Your task to perform on an android device: find which apps use the phone's location Image 0: 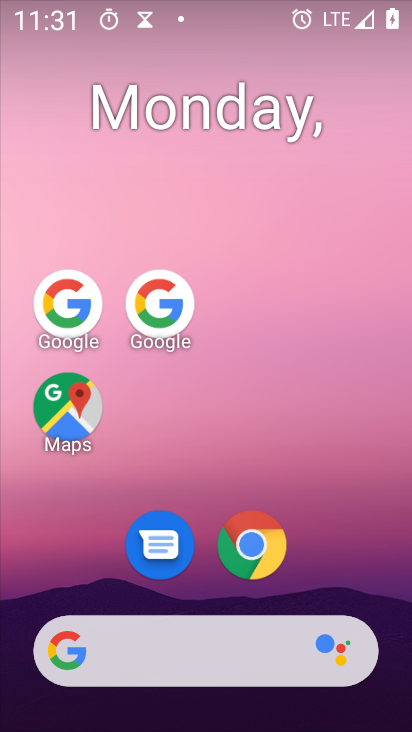
Step 0: press home button
Your task to perform on an android device: find which apps use the phone's location Image 1: 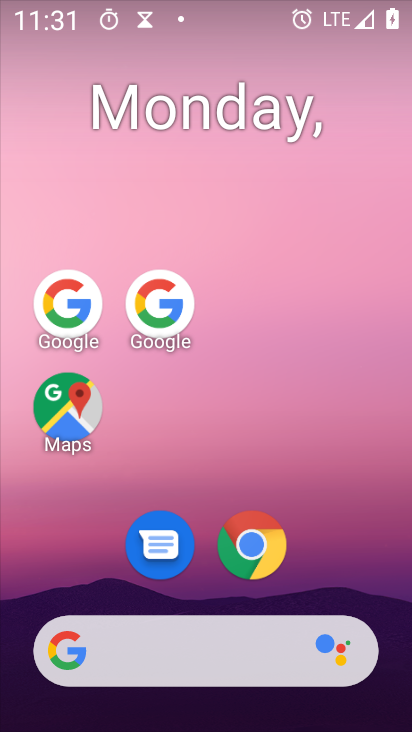
Step 1: drag from (136, 645) to (302, 133)
Your task to perform on an android device: find which apps use the phone's location Image 2: 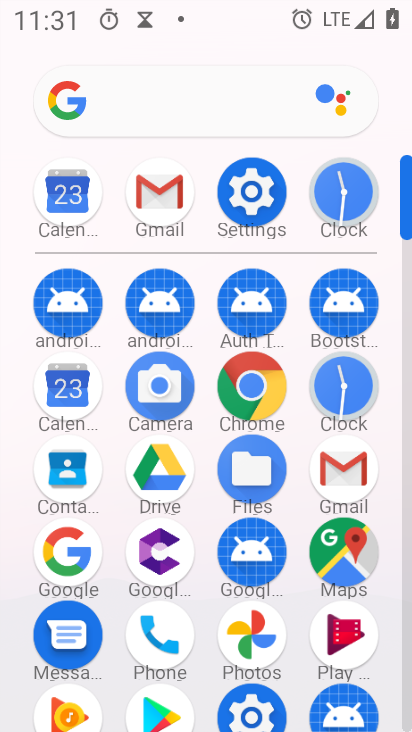
Step 2: click (259, 209)
Your task to perform on an android device: find which apps use the phone's location Image 3: 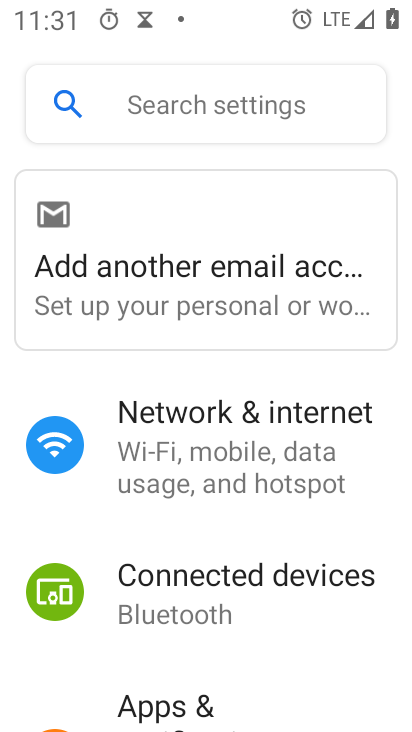
Step 3: drag from (208, 647) to (309, 243)
Your task to perform on an android device: find which apps use the phone's location Image 4: 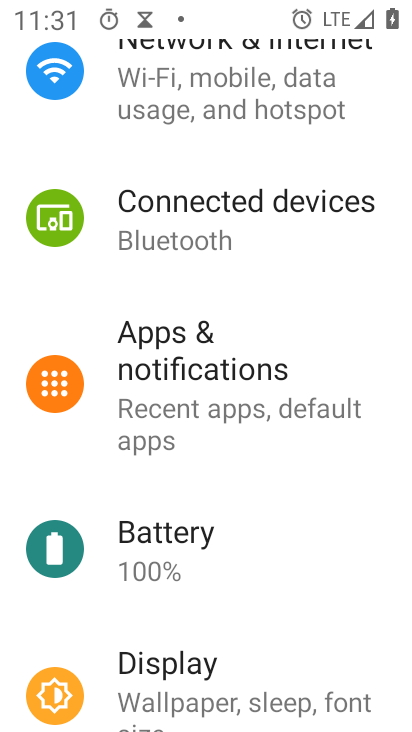
Step 4: drag from (270, 614) to (346, 110)
Your task to perform on an android device: find which apps use the phone's location Image 5: 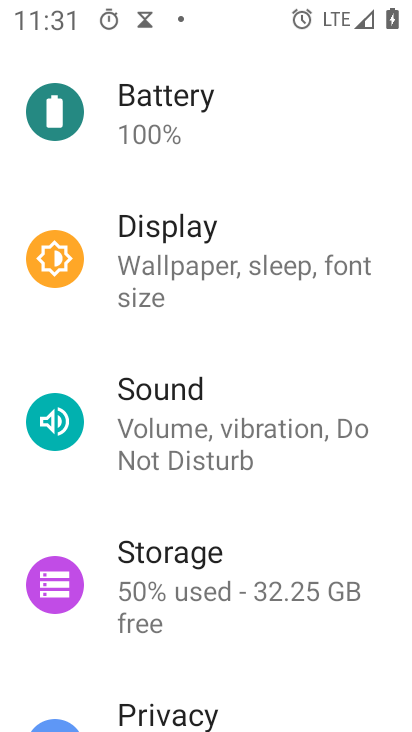
Step 5: drag from (227, 651) to (281, 221)
Your task to perform on an android device: find which apps use the phone's location Image 6: 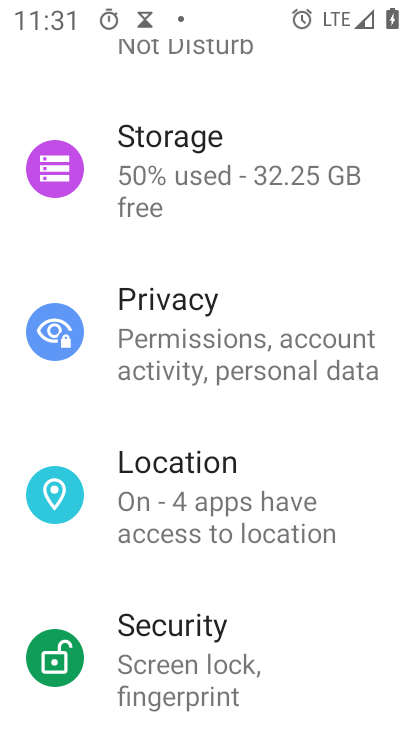
Step 6: click (202, 488)
Your task to perform on an android device: find which apps use the phone's location Image 7: 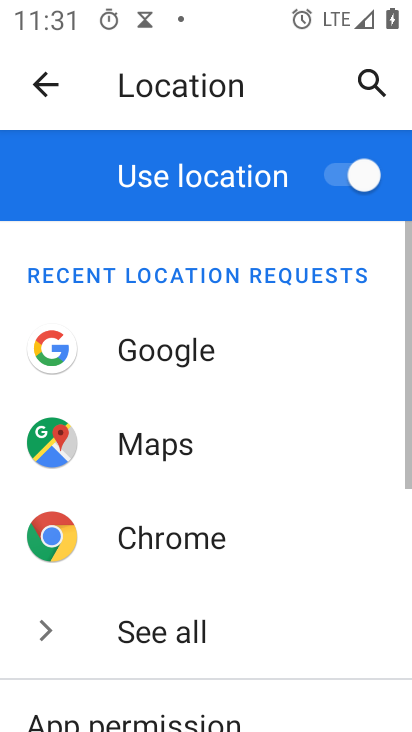
Step 7: drag from (267, 531) to (320, 225)
Your task to perform on an android device: find which apps use the phone's location Image 8: 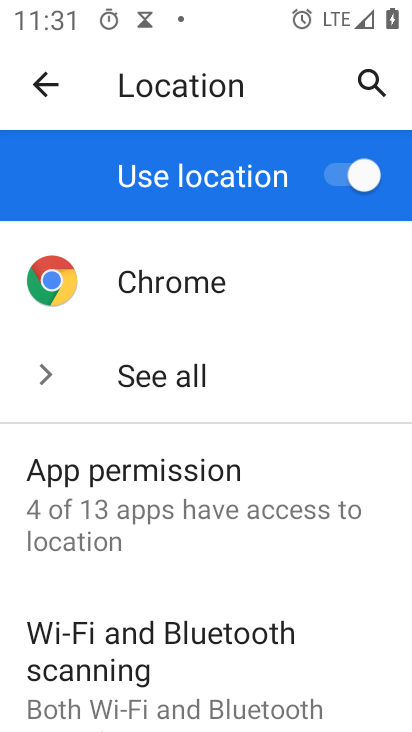
Step 8: click (159, 505)
Your task to perform on an android device: find which apps use the phone's location Image 9: 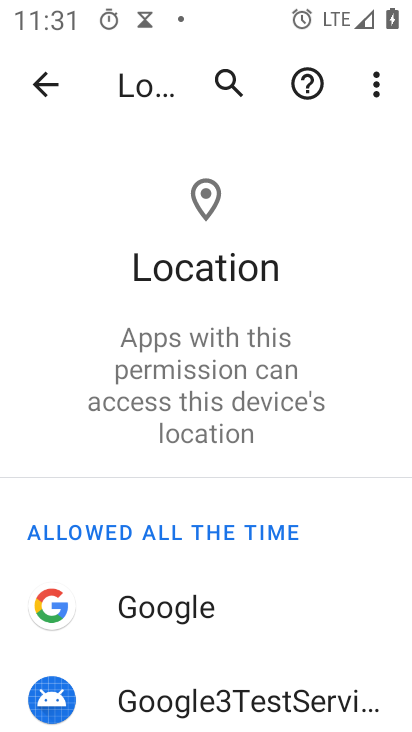
Step 9: drag from (177, 662) to (284, 37)
Your task to perform on an android device: find which apps use the phone's location Image 10: 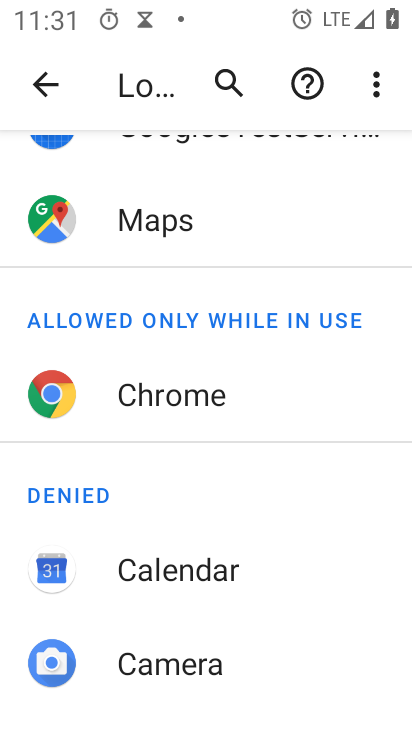
Step 10: drag from (186, 651) to (254, 123)
Your task to perform on an android device: find which apps use the phone's location Image 11: 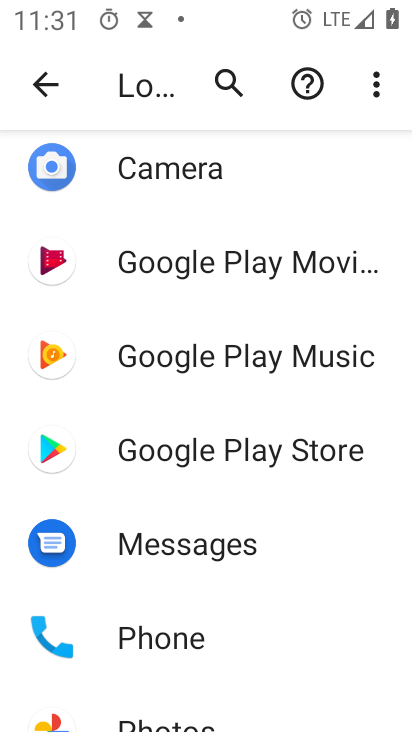
Step 11: drag from (206, 636) to (288, 429)
Your task to perform on an android device: find which apps use the phone's location Image 12: 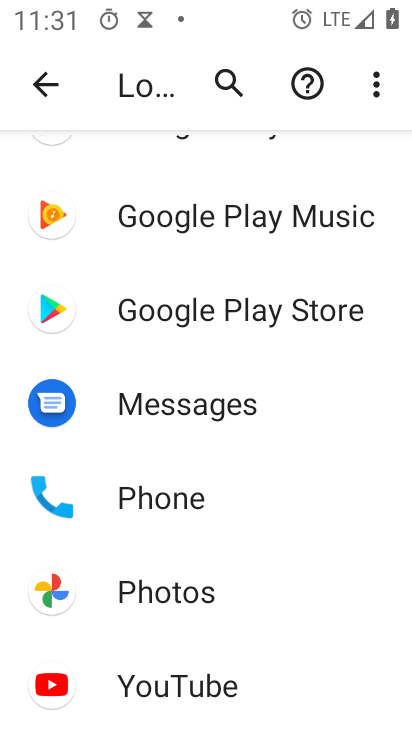
Step 12: click (199, 507)
Your task to perform on an android device: find which apps use the phone's location Image 13: 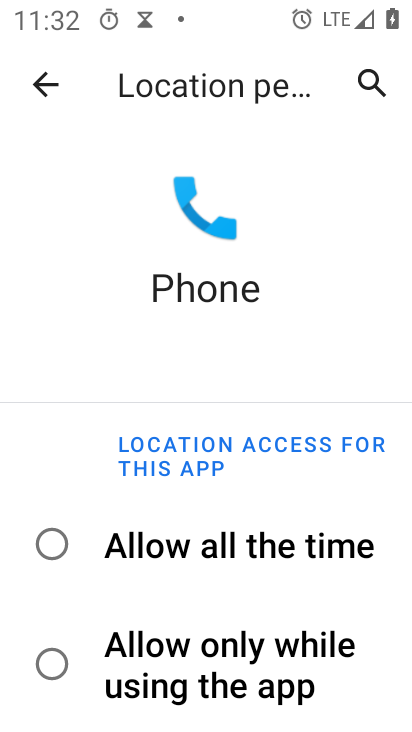
Step 13: task complete